Your task to perform on an android device: Open accessibility settings Image 0: 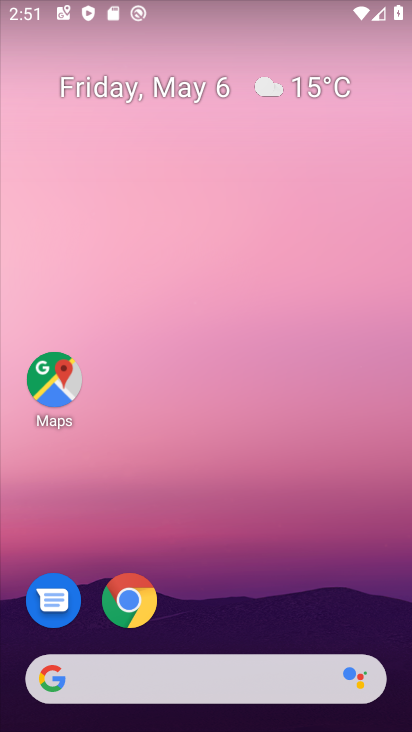
Step 0: drag from (298, 573) to (240, 16)
Your task to perform on an android device: Open accessibility settings Image 1: 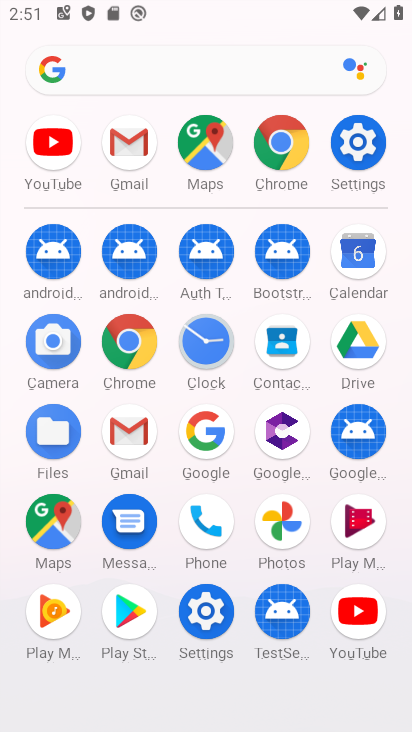
Step 1: drag from (8, 599) to (20, 245)
Your task to perform on an android device: Open accessibility settings Image 2: 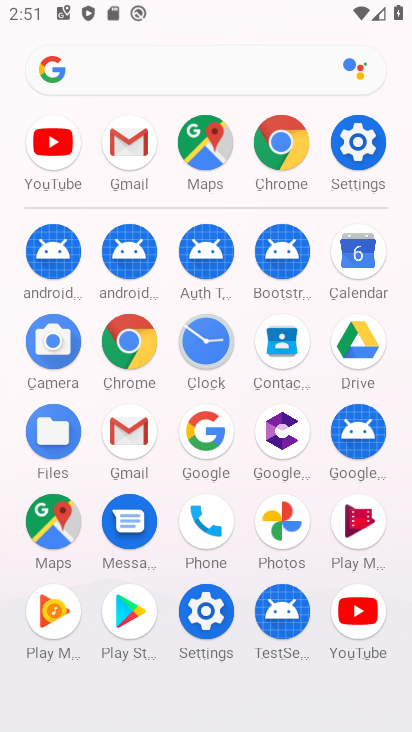
Step 2: click (205, 607)
Your task to perform on an android device: Open accessibility settings Image 3: 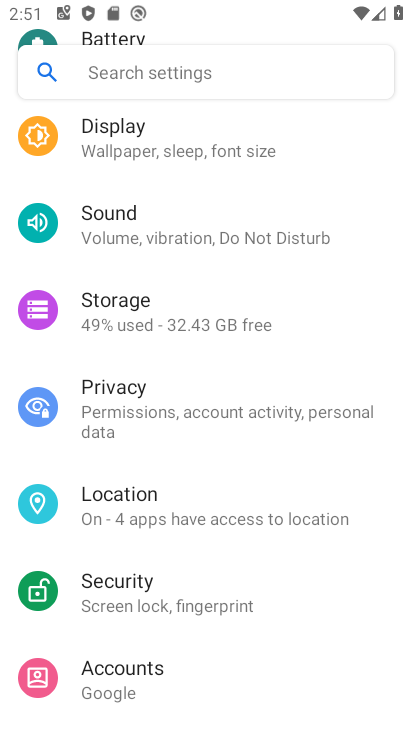
Step 3: drag from (269, 591) to (267, 113)
Your task to perform on an android device: Open accessibility settings Image 4: 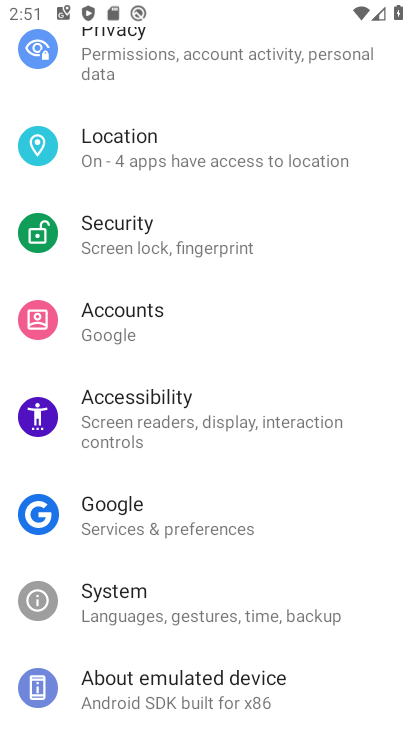
Step 4: drag from (258, 588) to (258, 128)
Your task to perform on an android device: Open accessibility settings Image 5: 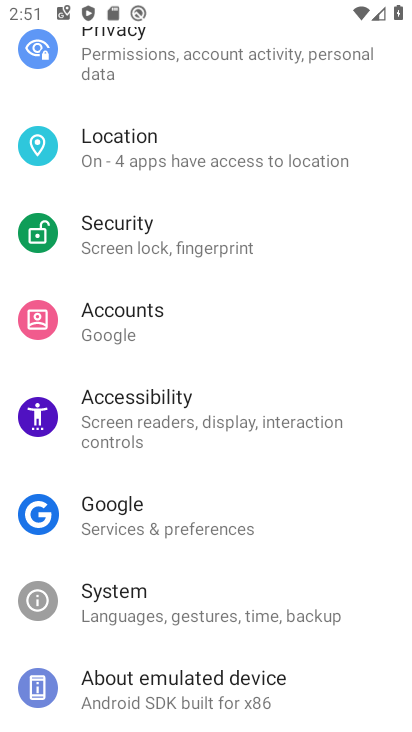
Step 5: drag from (309, 550) to (289, 85)
Your task to perform on an android device: Open accessibility settings Image 6: 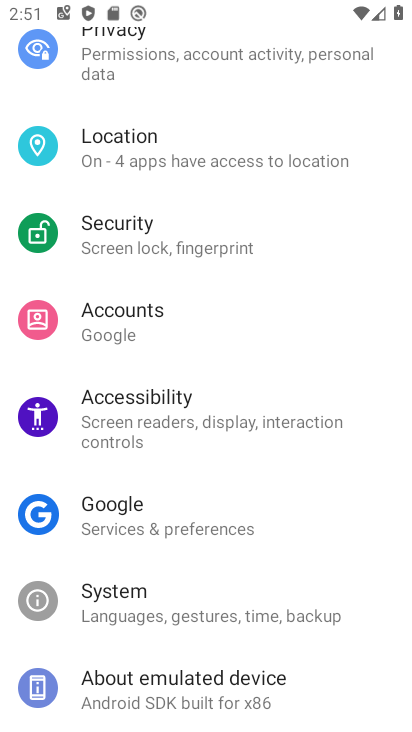
Step 6: click (180, 411)
Your task to perform on an android device: Open accessibility settings Image 7: 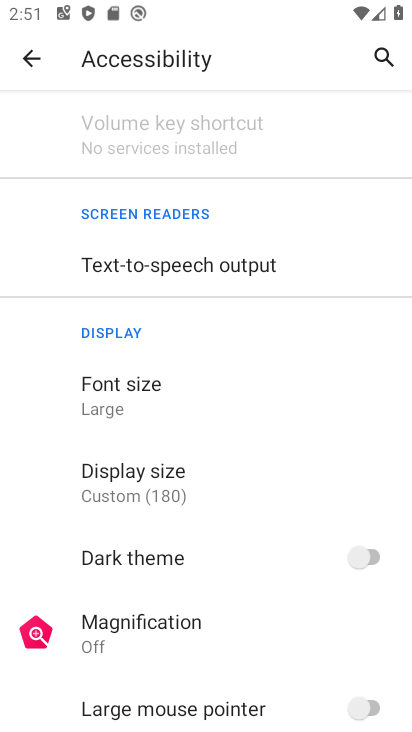
Step 7: task complete